Your task to perform on an android device: Open Wikipedia Image 0: 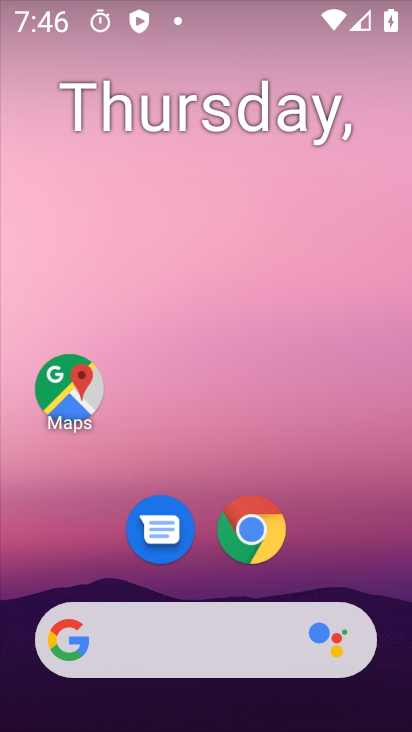
Step 0: click (250, 523)
Your task to perform on an android device: Open Wikipedia Image 1: 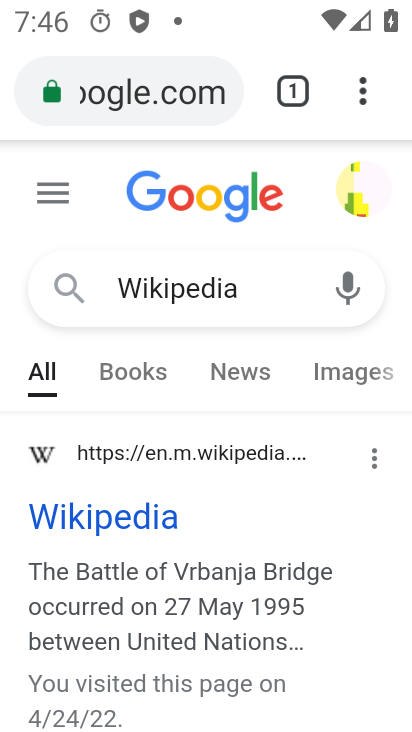
Step 1: task complete